Your task to perform on an android device: open app "Adobe Express: Graphic Design" (install if not already installed) Image 0: 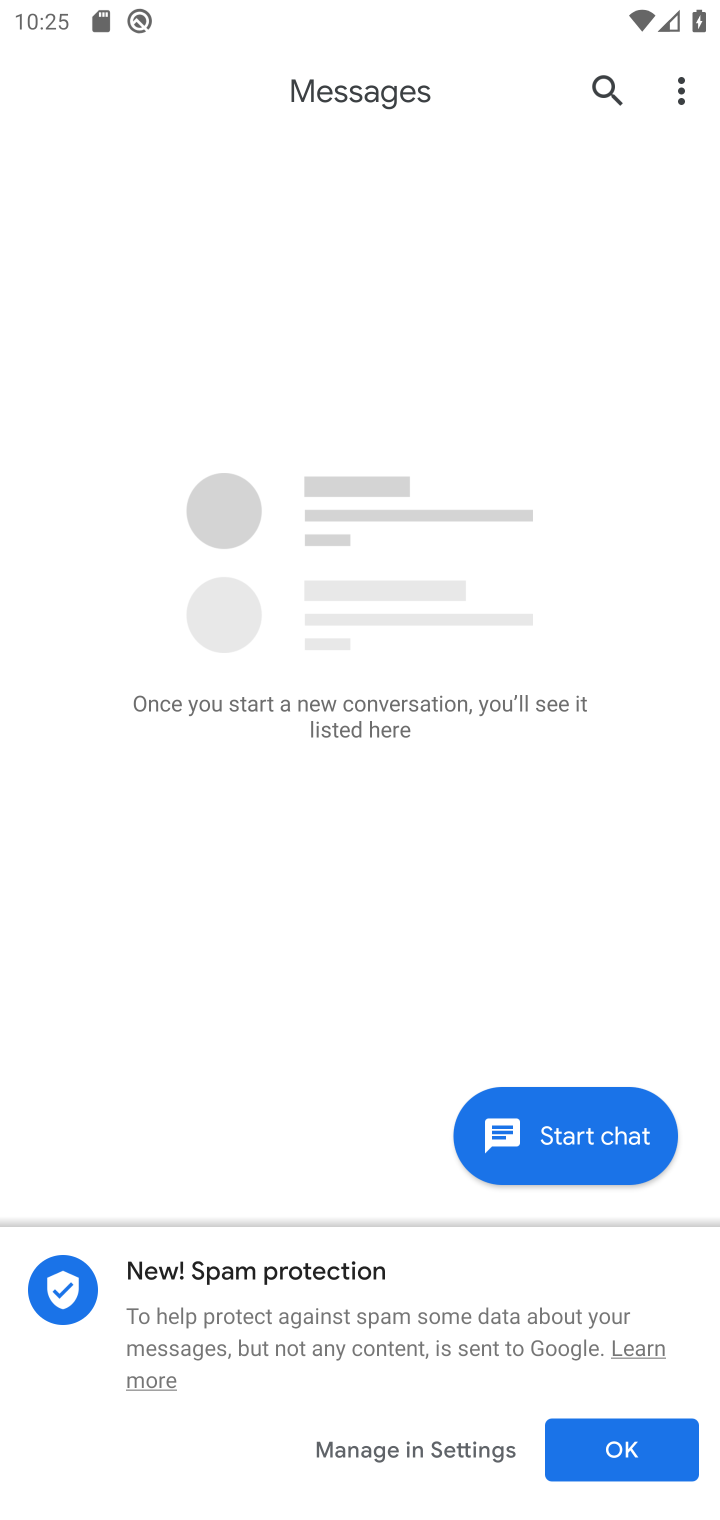
Step 0: press home button
Your task to perform on an android device: open app "Adobe Express: Graphic Design" (install if not already installed) Image 1: 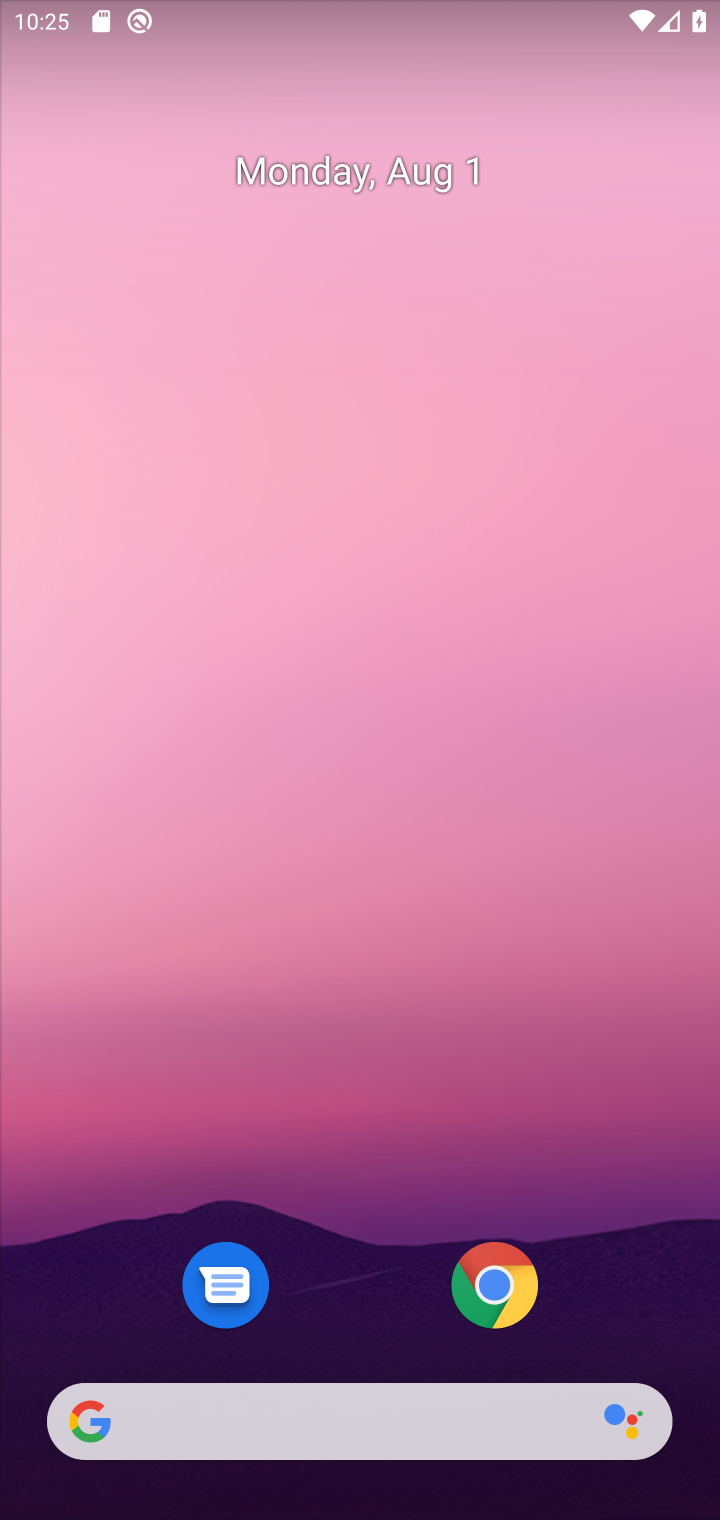
Step 1: drag from (381, 1377) to (453, 475)
Your task to perform on an android device: open app "Adobe Express: Graphic Design" (install if not already installed) Image 2: 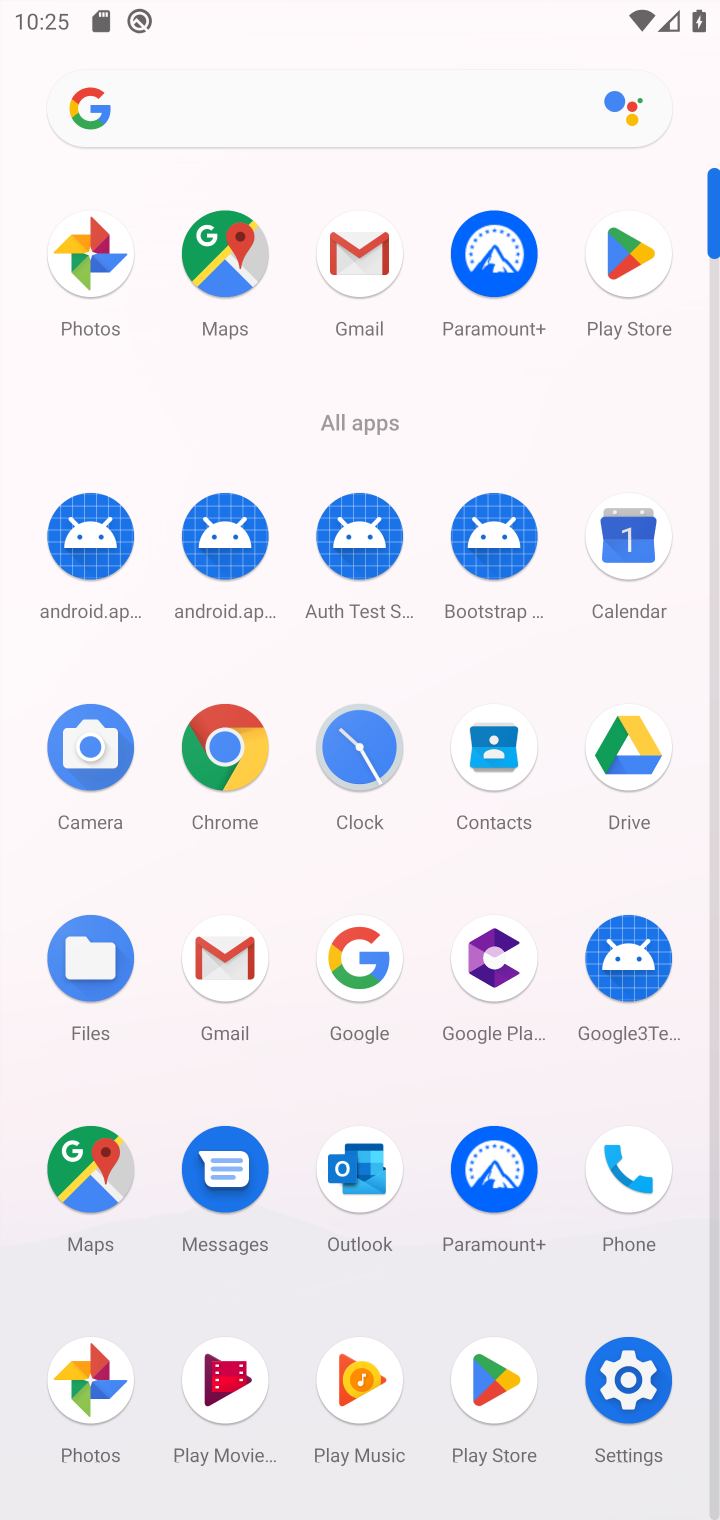
Step 2: click (633, 252)
Your task to perform on an android device: open app "Adobe Express: Graphic Design" (install if not already installed) Image 3: 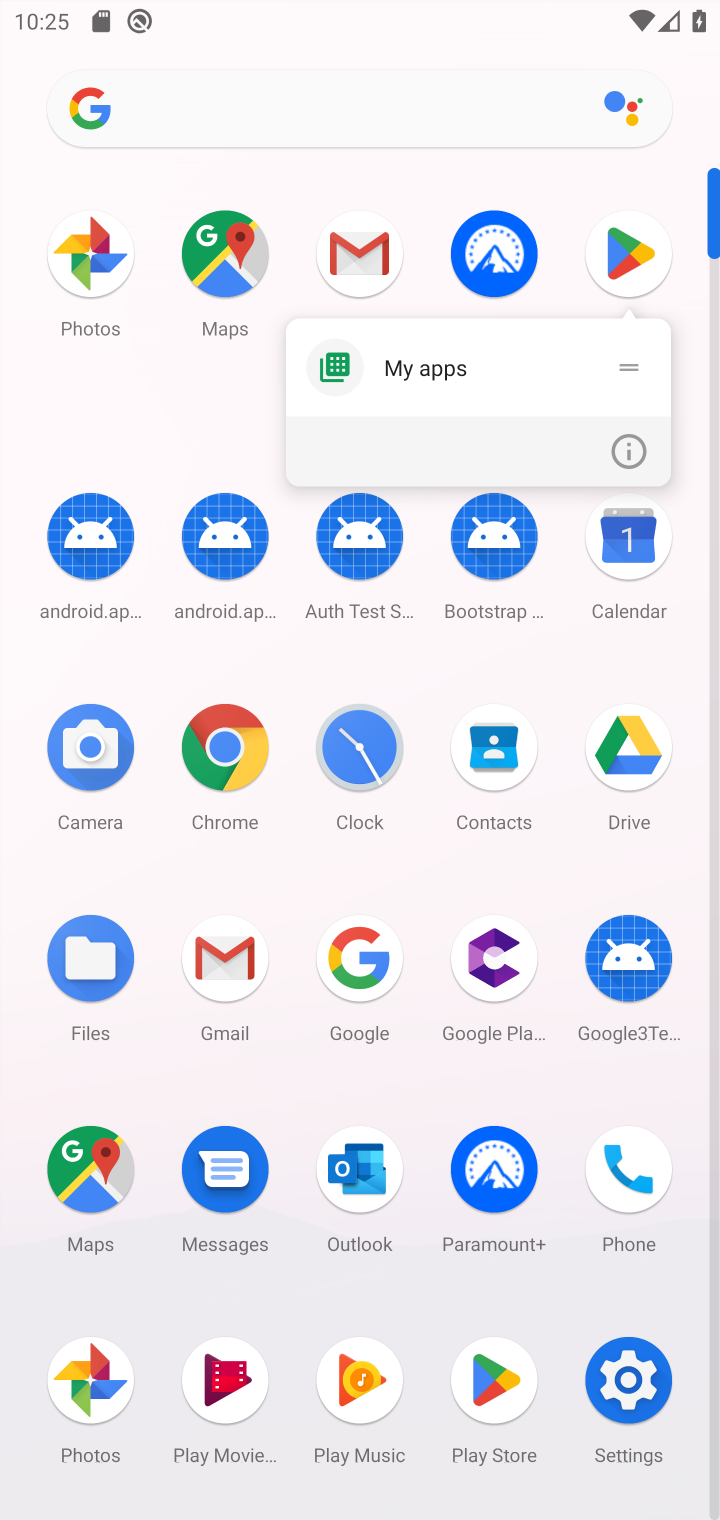
Step 3: click (633, 252)
Your task to perform on an android device: open app "Adobe Express: Graphic Design" (install if not already installed) Image 4: 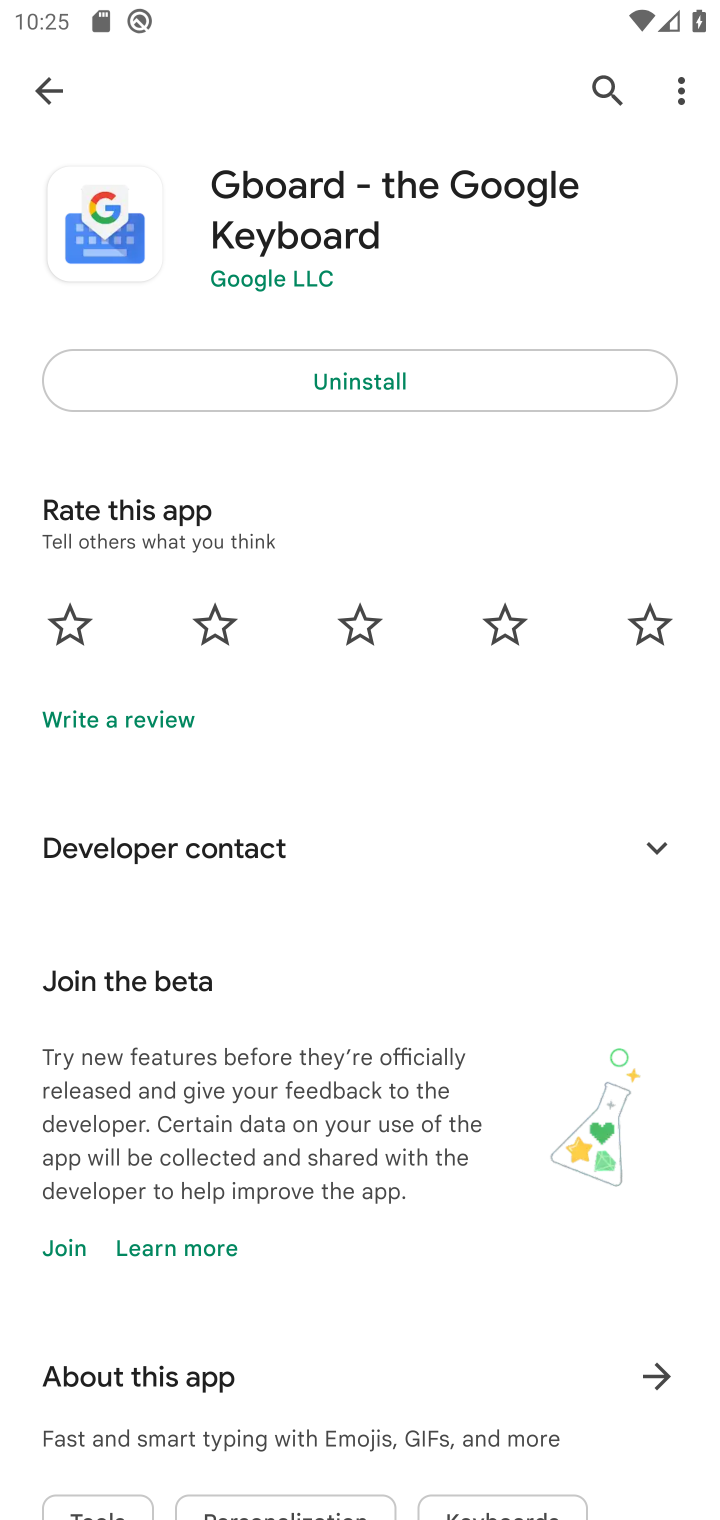
Step 4: click (45, 78)
Your task to perform on an android device: open app "Adobe Express: Graphic Design" (install if not already installed) Image 5: 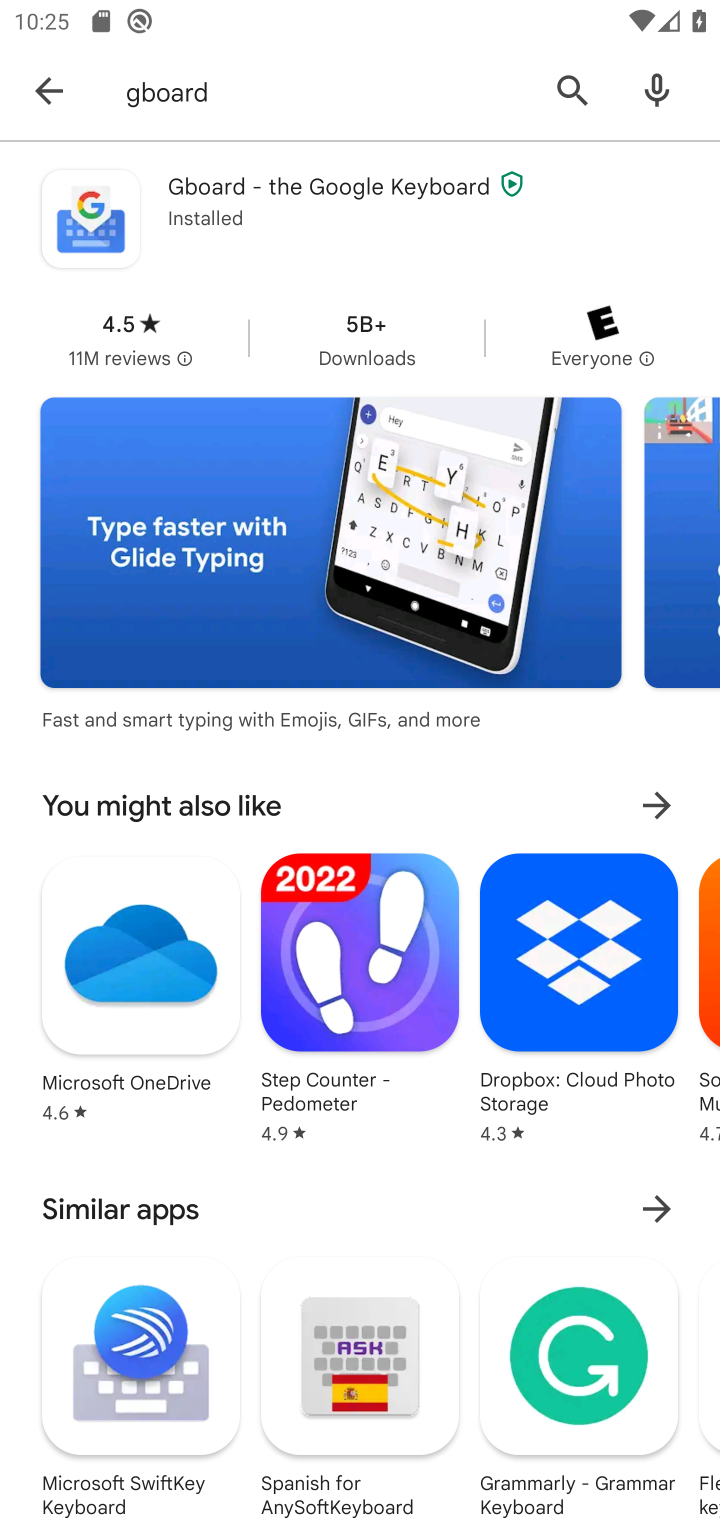
Step 5: click (577, 89)
Your task to perform on an android device: open app "Adobe Express: Graphic Design" (install if not already installed) Image 6: 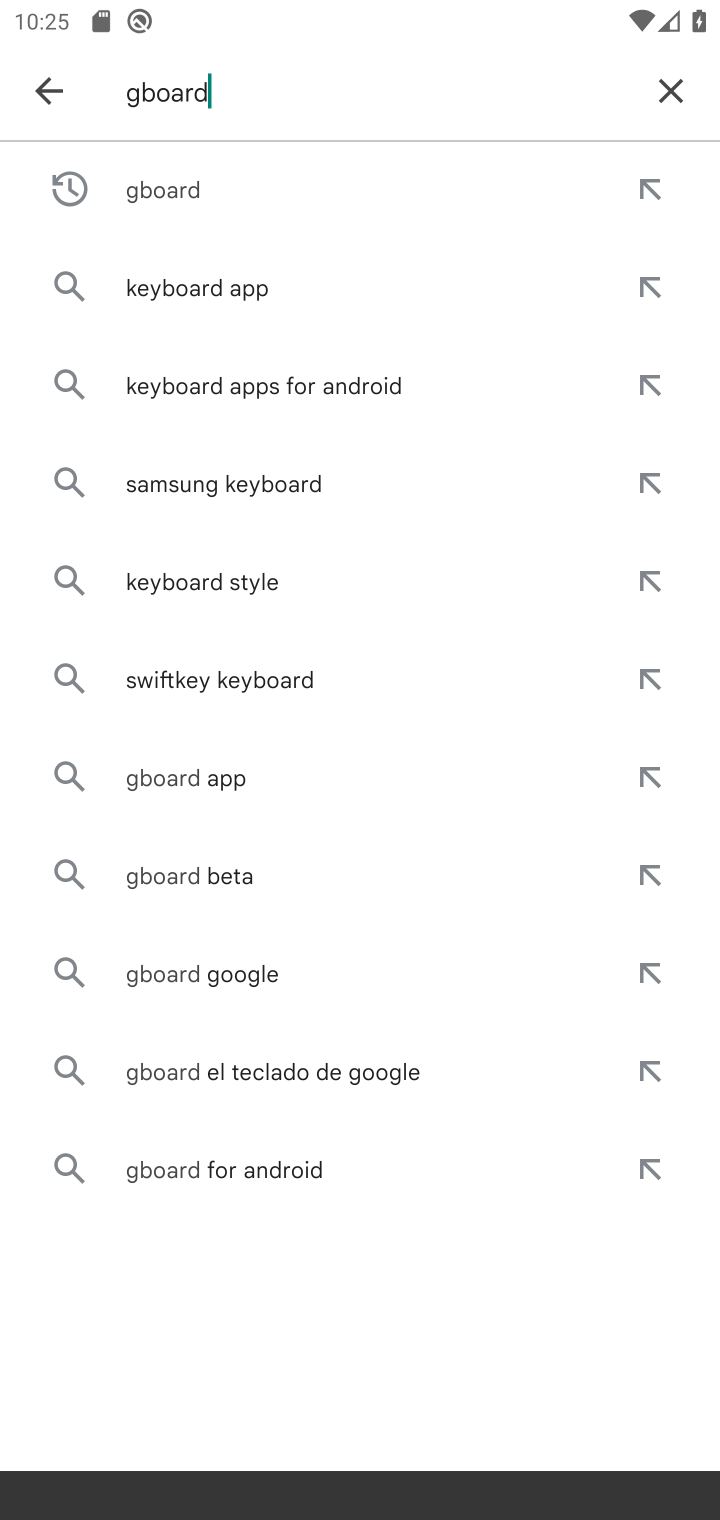
Step 6: click (690, 96)
Your task to perform on an android device: open app "Adobe Express: Graphic Design" (install if not already installed) Image 7: 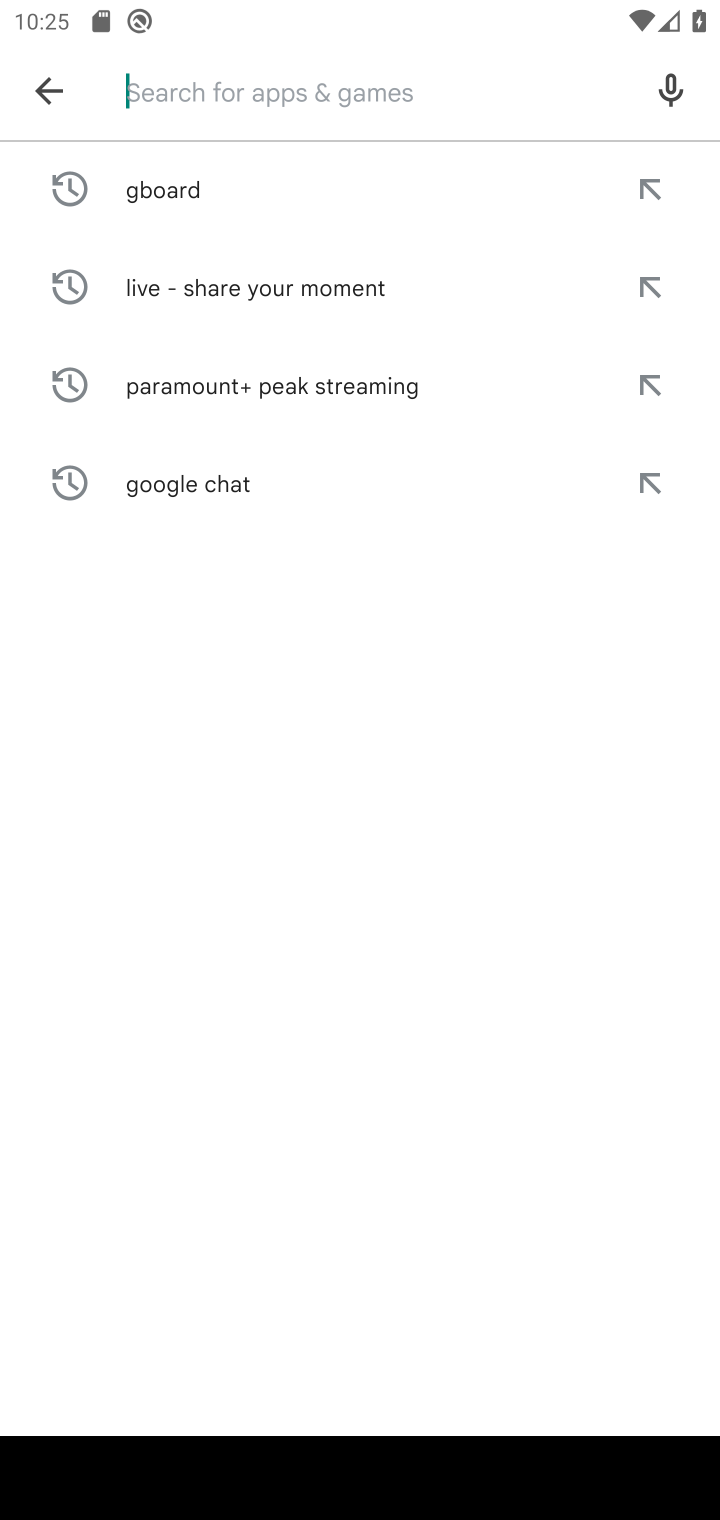
Step 7: click (345, 88)
Your task to perform on an android device: open app "Adobe Express: Graphic Design" (install if not already installed) Image 8: 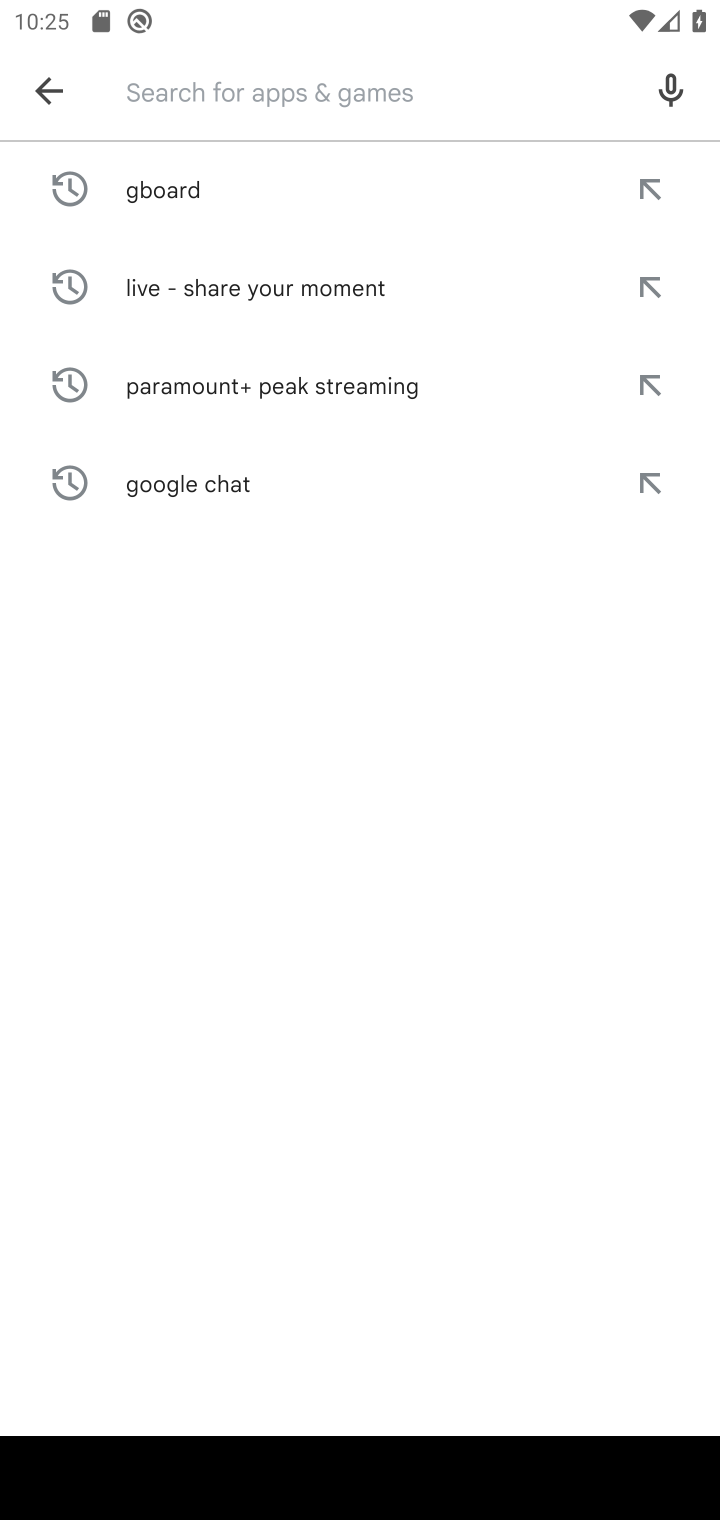
Step 8: type "Adobe Express: Graphic Design"
Your task to perform on an android device: open app "Adobe Express: Graphic Design" (install if not already installed) Image 9: 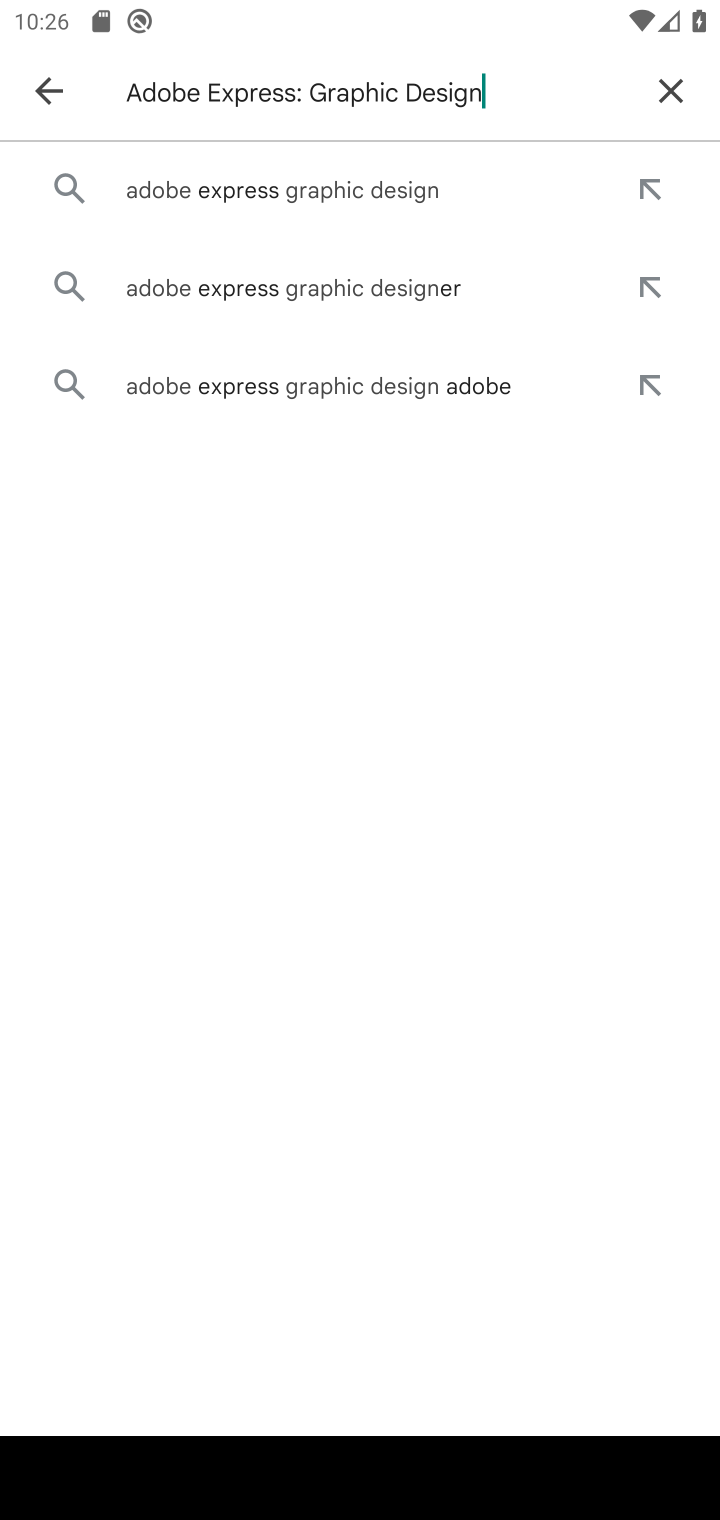
Step 9: click (273, 199)
Your task to perform on an android device: open app "Adobe Express: Graphic Design" (install if not already installed) Image 10: 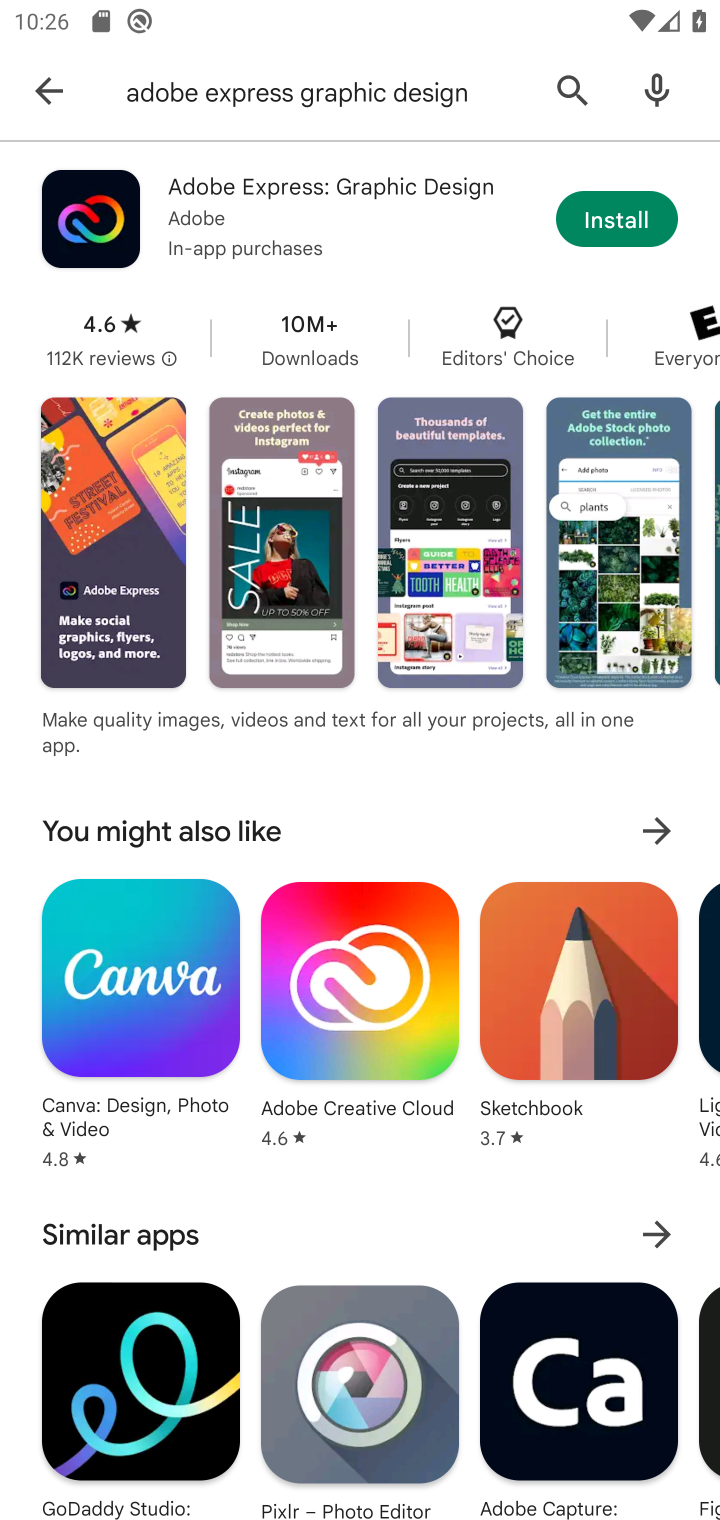
Step 10: click (636, 218)
Your task to perform on an android device: open app "Adobe Express: Graphic Design" (install if not already installed) Image 11: 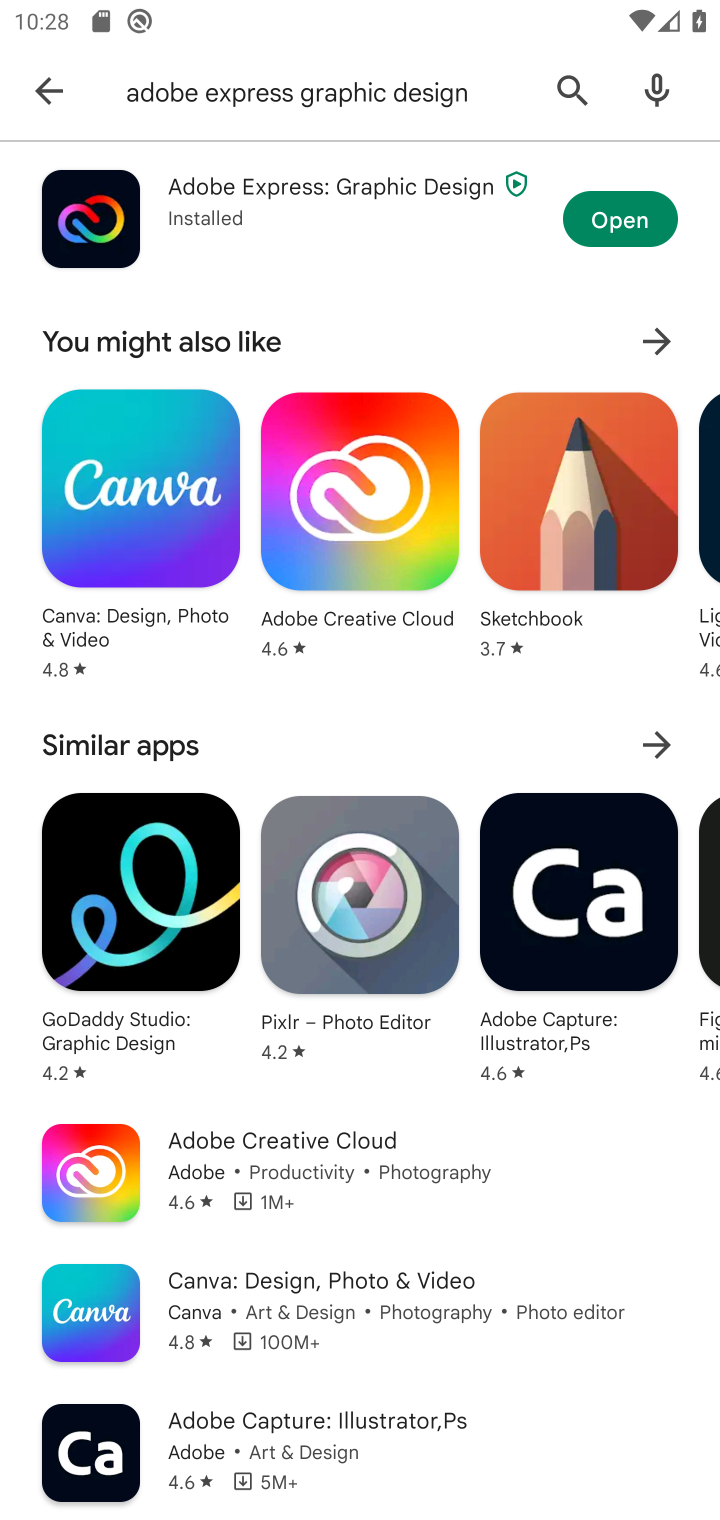
Step 11: click (618, 206)
Your task to perform on an android device: open app "Adobe Express: Graphic Design" (install if not already installed) Image 12: 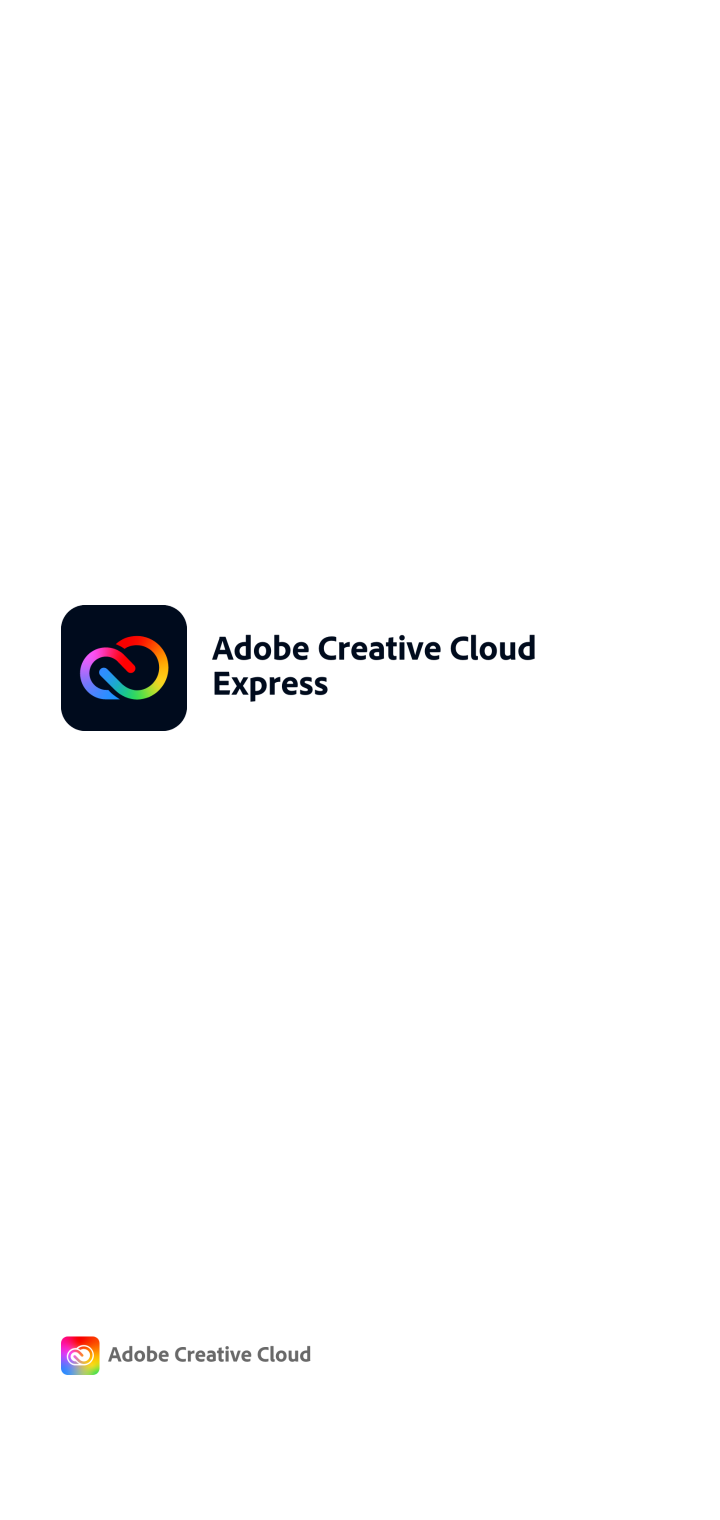
Step 12: task complete